Your task to perform on an android device: move an email to a new category in the gmail app Image 0: 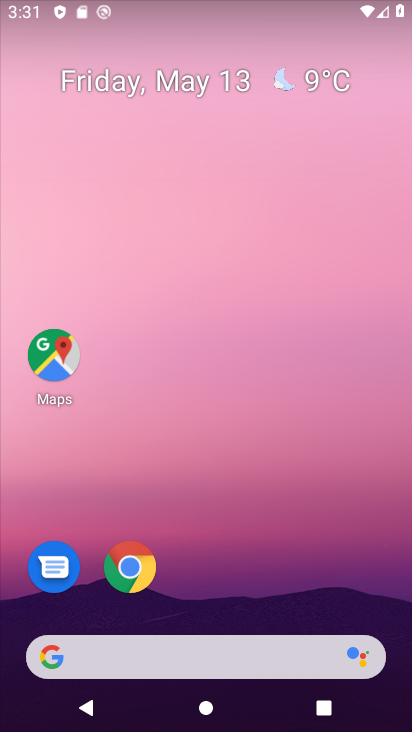
Step 0: drag from (241, 579) to (256, 90)
Your task to perform on an android device: move an email to a new category in the gmail app Image 1: 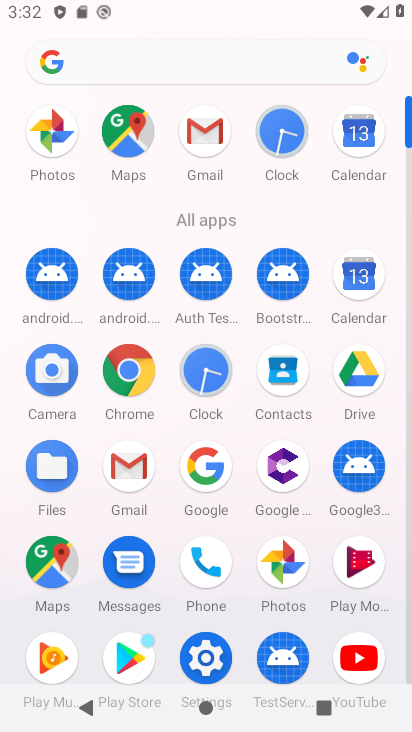
Step 1: click (207, 137)
Your task to perform on an android device: move an email to a new category in the gmail app Image 2: 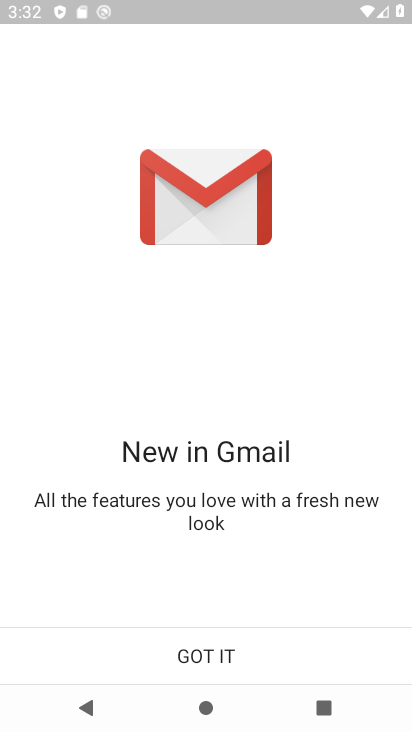
Step 2: click (196, 657)
Your task to perform on an android device: move an email to a new category in the gmail app Image 3: 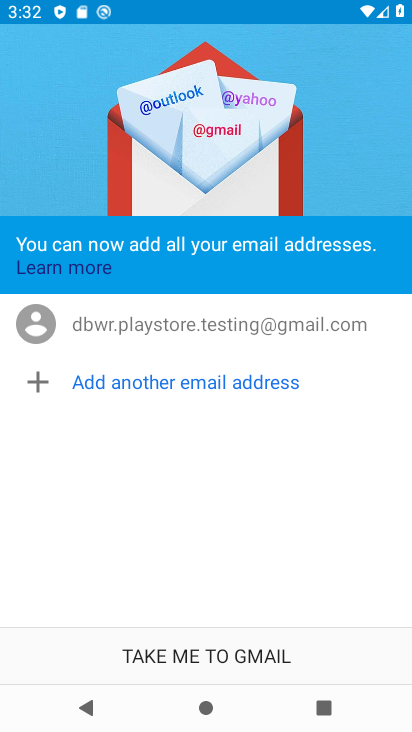
Step 3: click (196, 657)
Your task to perform on an android device: move an email to a new category in the gmail app Image 4: 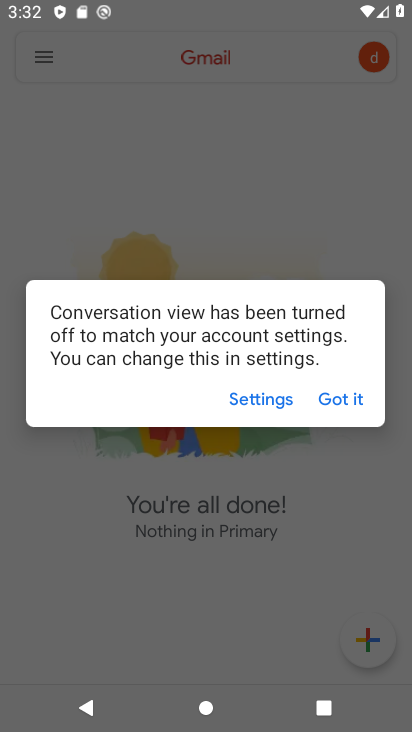
Step 4: click (346, 396)
Your task to perform on an android device: move an email to a new category in the gmail app Image 5: 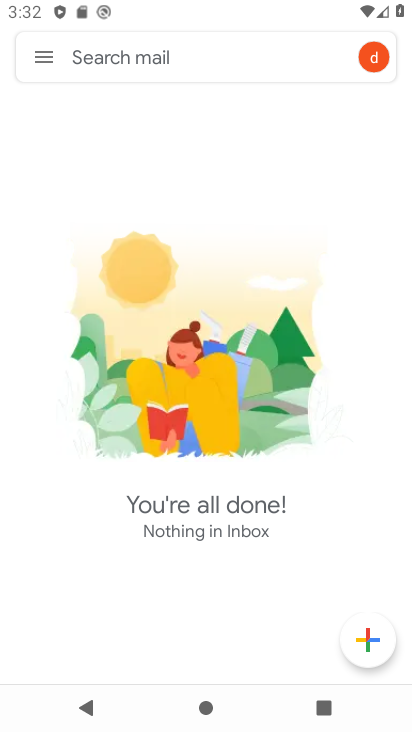
Step 5: click (50, 54)
Your task to perform on an android device: move an email to a new category in the gmail app Image 6: 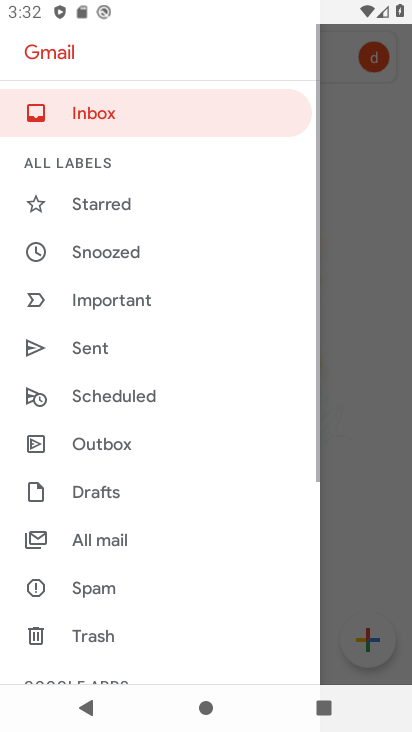
Step 6: drag from (135, 490) to (161, 240)
Your task to perform on an android device: move an email to a new category in the gmail app Image 7: 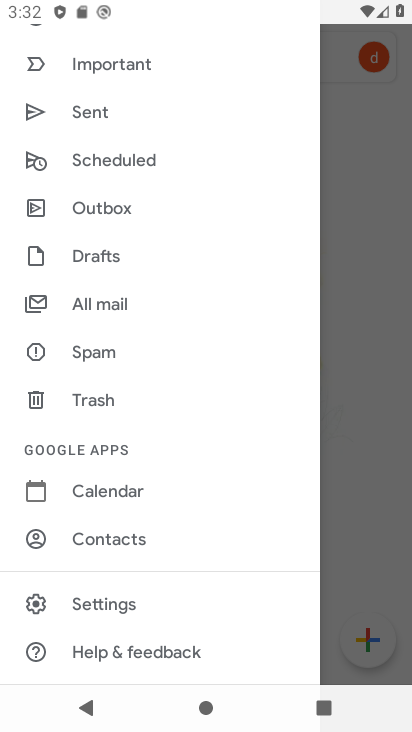
Step 7: click (82, 295)
Your task to perform on an android device: move an email to a new category in the gmail app Image 8: 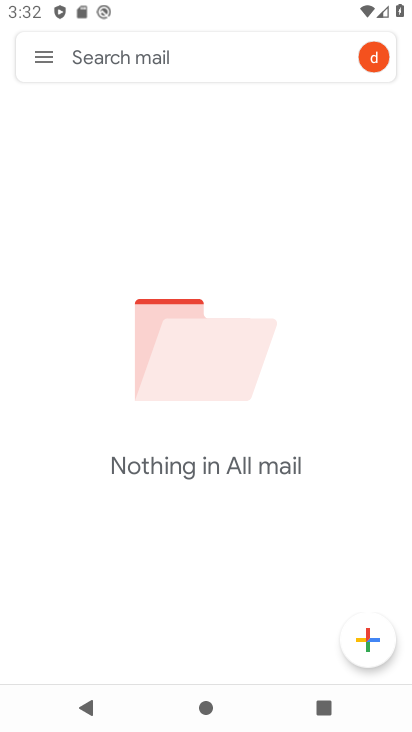
Step 8: task complete